Your task to perform on an android device: toggle pop-ups in chrome Image 0: 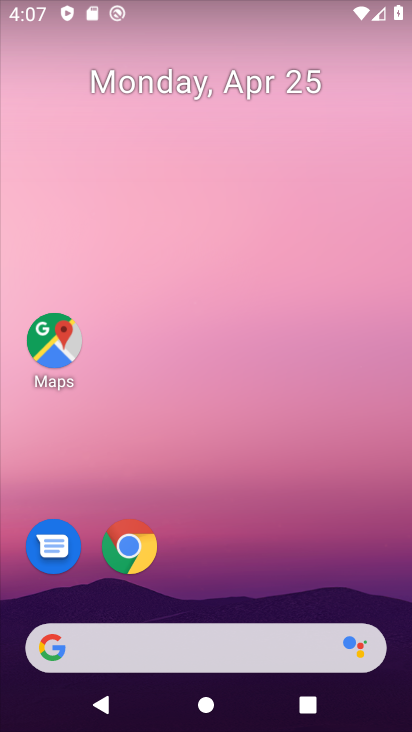
Step 0: drag from (220, 611) to (179, 1)
Your task to perform on an android device: toggle pop-ups in chrome Image 1: 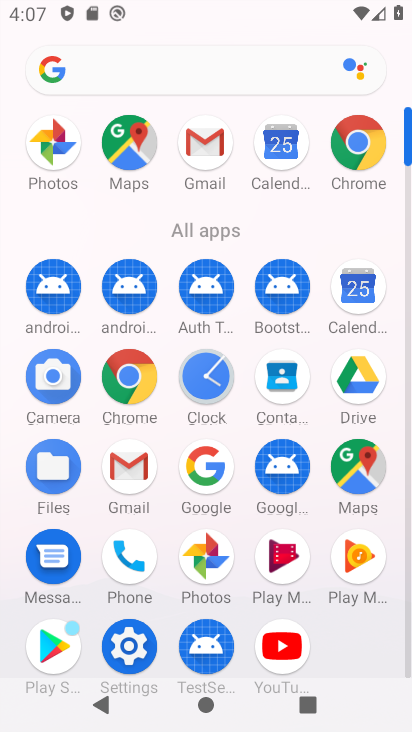
Step 1: click (377, 155)
Your task to perform on an android device: toggle pop-ups in chrome Image 2: 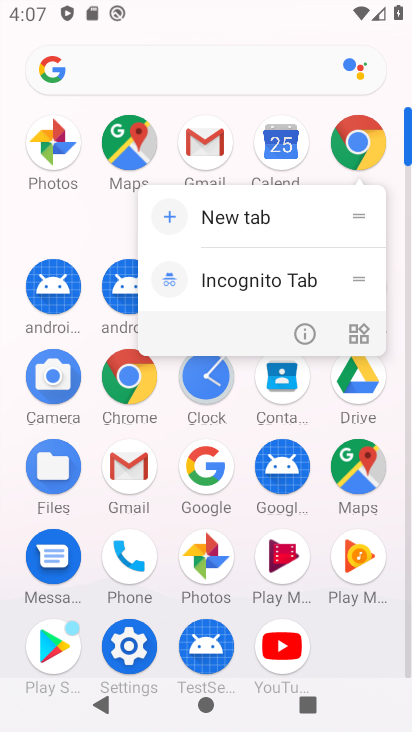
Step 2: click (373, 145)
Your task to perform on an android device: toggle pop-ups in chrome Image 3: 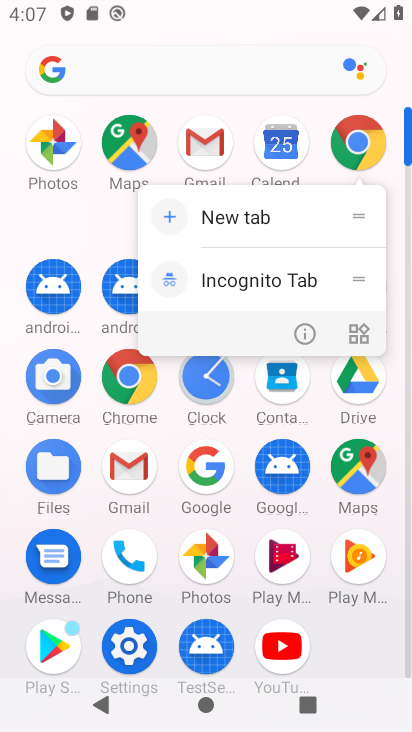
Step 3: click (361, 133)
Your task to perform on an android device: toggle pop-ups in chrome Image 4: 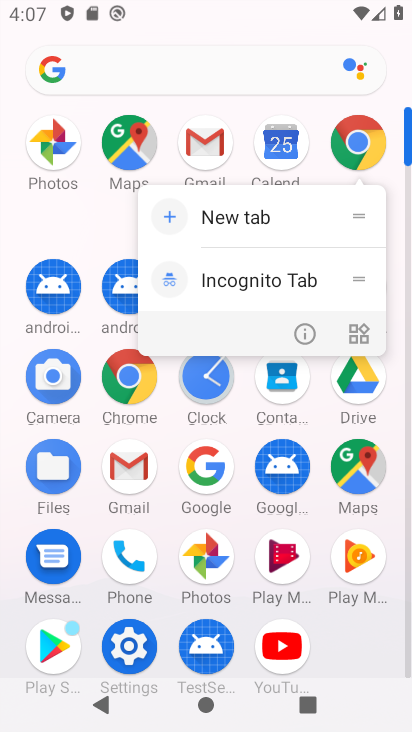
Step 4: click (357, 136)
Your task to perform on an android device: toggle pop-ups in chrome Image 5: 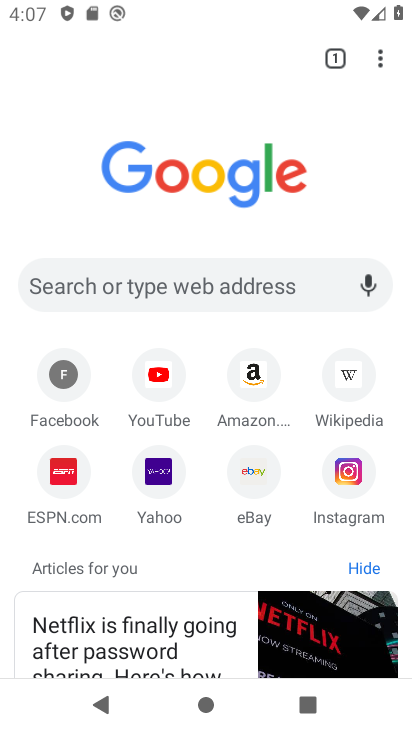
Step 5: drag from (376, 59) to (227, 477)
Your task to perform on an android device: toggle pop-ups in chrome Image 6: 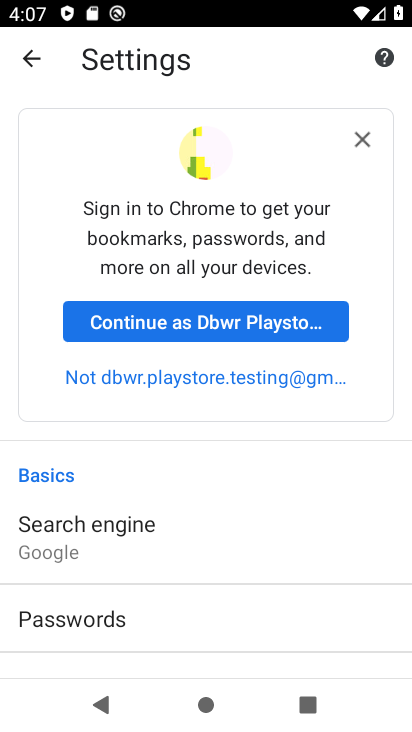
Step 6: drag from (192, 540) to (188, 95)
Your task to perform on an android device: toggle pop-ups in chrome Image 7: 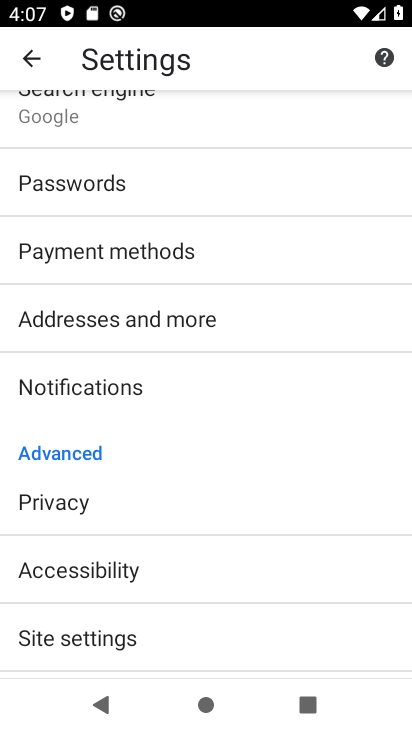
Step 7: drag from (108, 594) to (101, 218)
Your task to perform on an android device: toggle pop-ups in chrome Image 8: 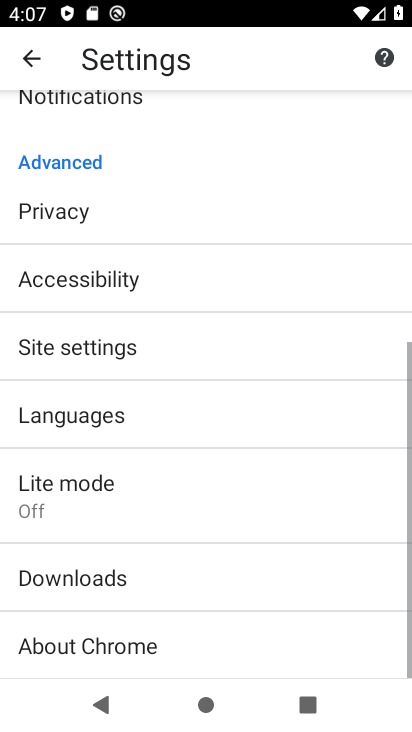
Step 8: click (93, 363)
Your task to perform on an android device: toggle pop-ups in chrome Image 9: 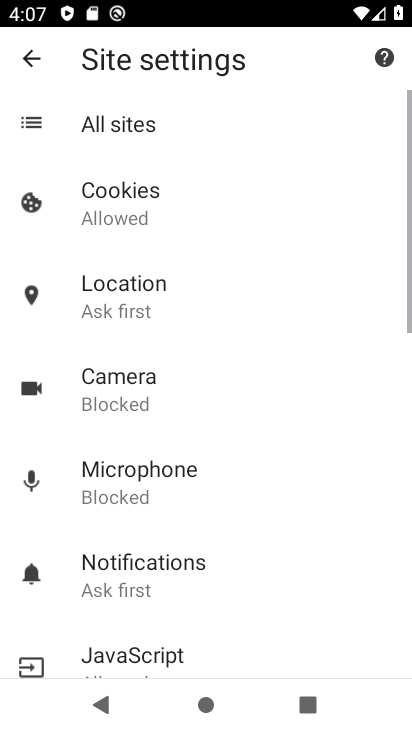
Step 9: drag from (195, 528) to (166, 65)
Your task to perform on an android device: toggle pop-ups in chrome Image 10: 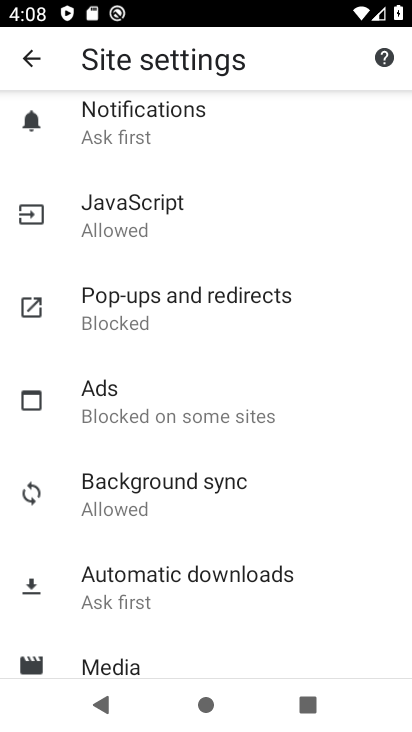
Step 10: click (180, 326)
Your task to perform on an android device: toggle pop-ups in chrome Image 11: 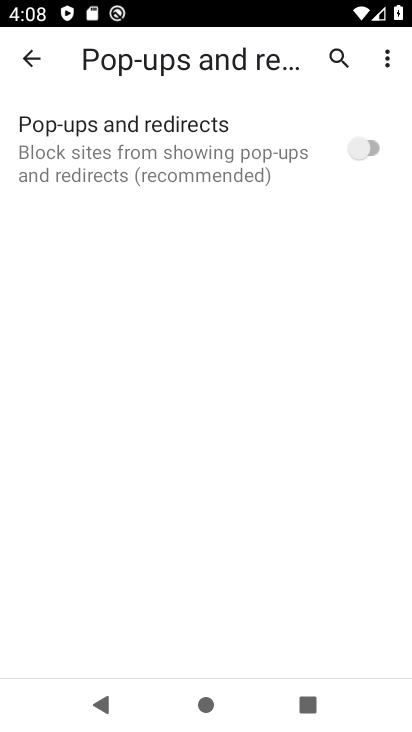
Step 11: click (350, 151)
Your task to perform on an android device: toggle pop-ups in chrome Image 12: 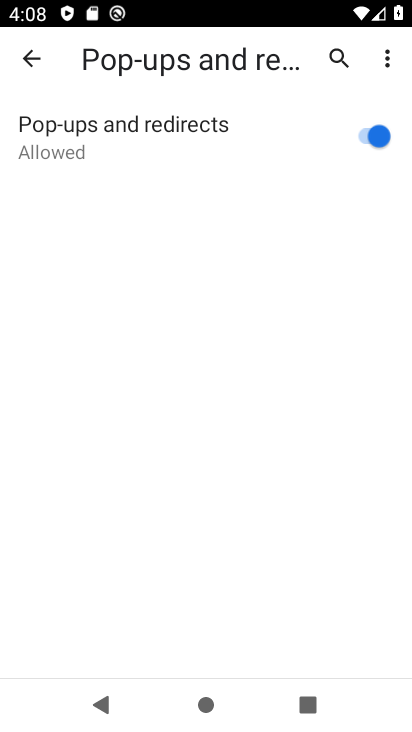
Step 12: task complete